Your task to perform on an android device: remove spam from my inbox in the gmail app Image 0: 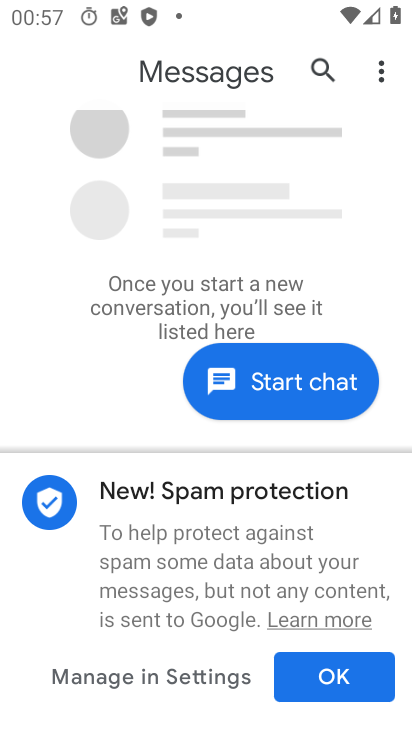
Step 0: press home button
Your task to perform on an android device: remove spam from my inbox in the gmail app Image 1: 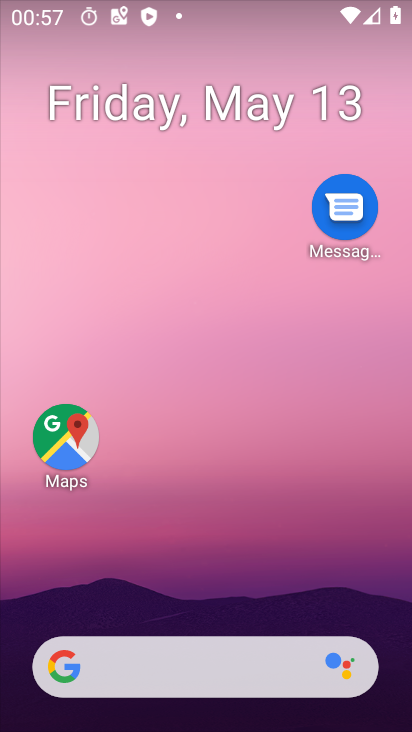
Step 1: drag from (385, 589) to (238, 228)
Your task to perform on an android device: remove spam from my inbox in the gmail app Image 2: 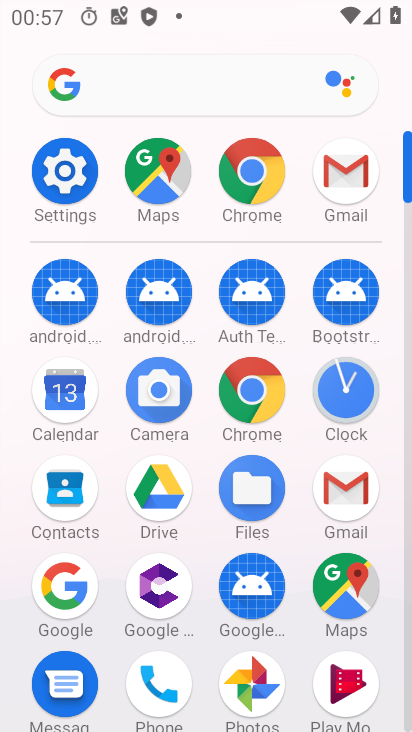
Step 2: click (359, 186)
Your task to perform on an android device: remove spam from my inbox in the gmail app Image 3: 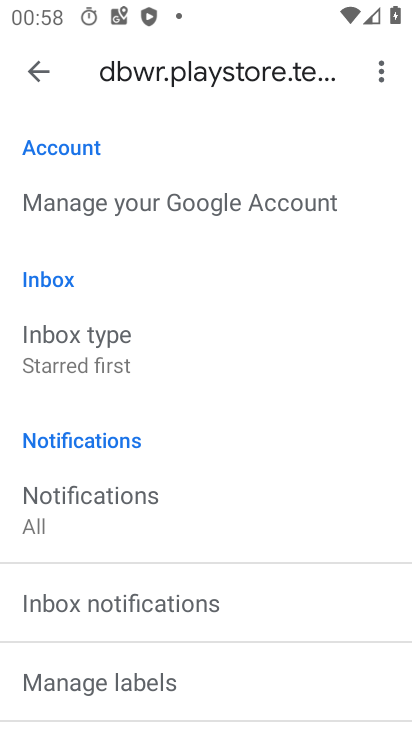
Step 3: task complete